Your task to perform on an android device: Go to Amazon Image 0: 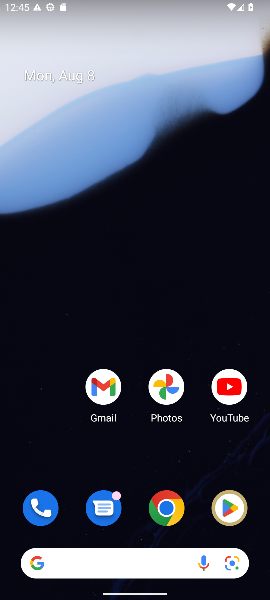
Step 0: click (164, 504)
Your task to perform on an android device: Go to Amazon Image 1: 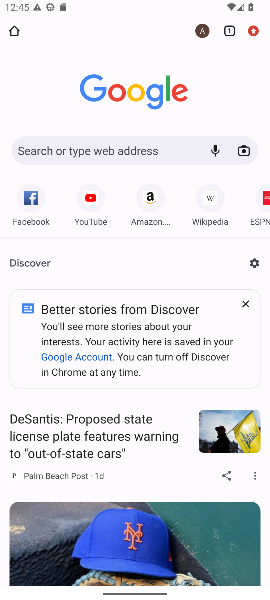
Step 1: click (136, 213)
Your task to perform on an android device: Go to Amazon Image 2: 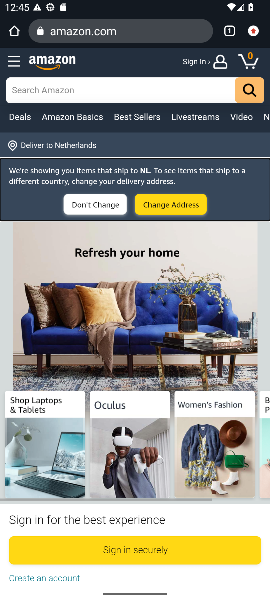
Step 2: task complete